Your task to perform on an android device: toggle translation in the chrome app Image 0: 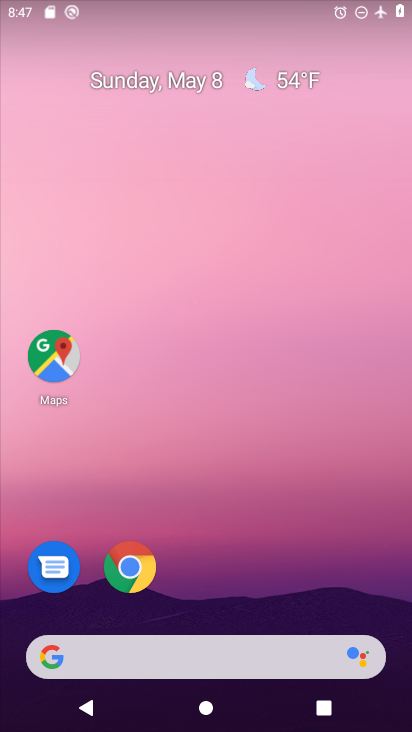
Step 0: drag from (341, 540) to (377, 12)
Your task to perform on an android device: toggle translation in the chrome app Image 1: 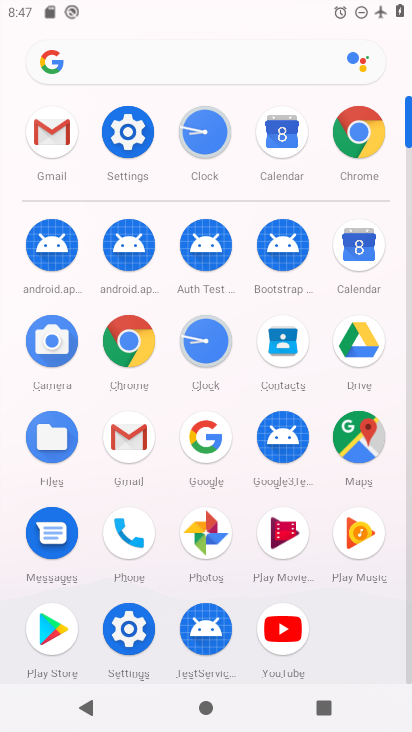
Step 1: click (371, 129)
Your task to perform on an android device: toggle translation in the chrome app Image 2: 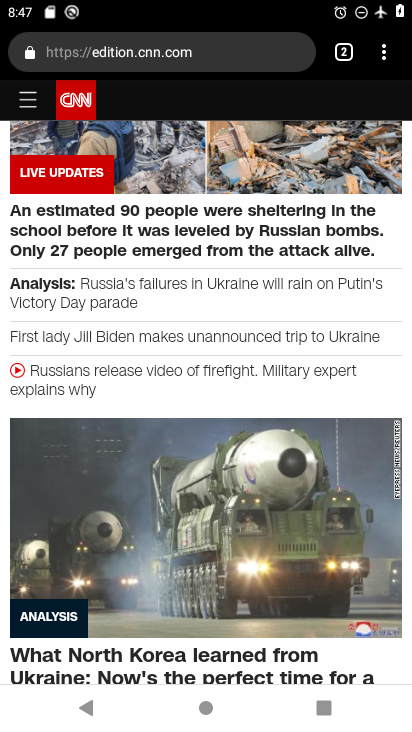
Step 2: drag from (390, 54) to (205, 570)
Your task to perform on an android device: toggle translation in the chrome app Image 3: 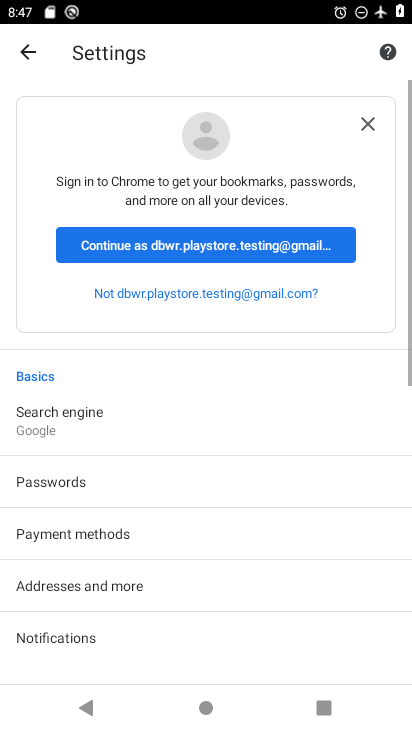
Step 3: drag from (194, 598) to (210, 243)
Your task to perform on an android device: toggle translation in the chrome app Image 4: 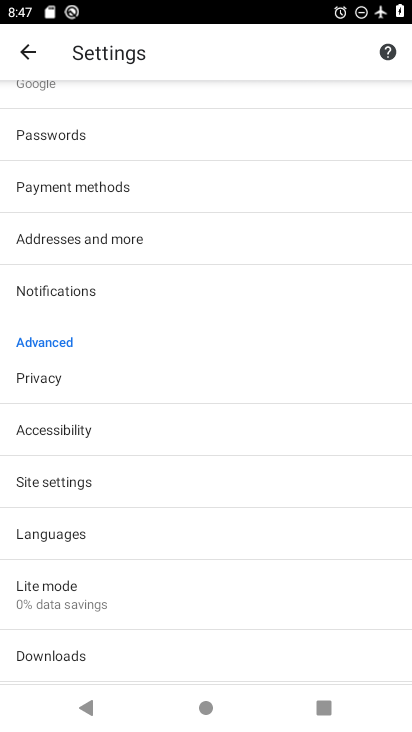
Step 4: drag from (152, 623) to (153, 296)
Your task to perform on an android device: toggle translation in the chrome app Image 5: 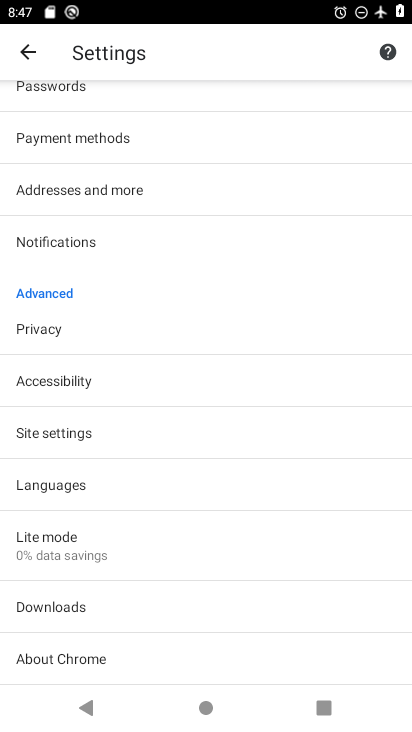
Step 5: click (81, 499)
Your task to perform on an android device: toggle translation in the chrome app Image 6: 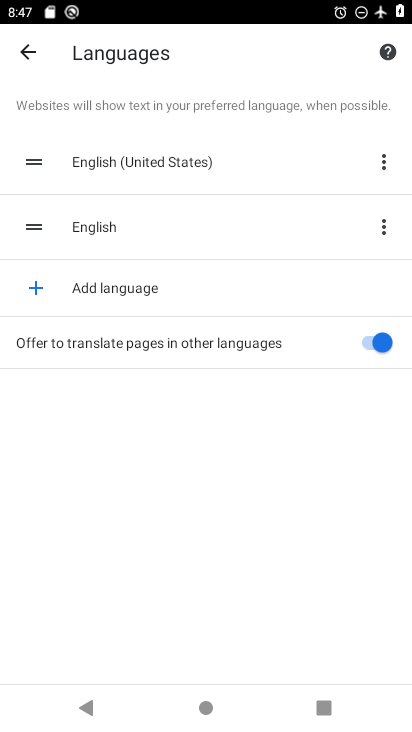
Step 6: click (379, 350)
Your task to perform on an android device: toggle translation in the chrome app Image 7: 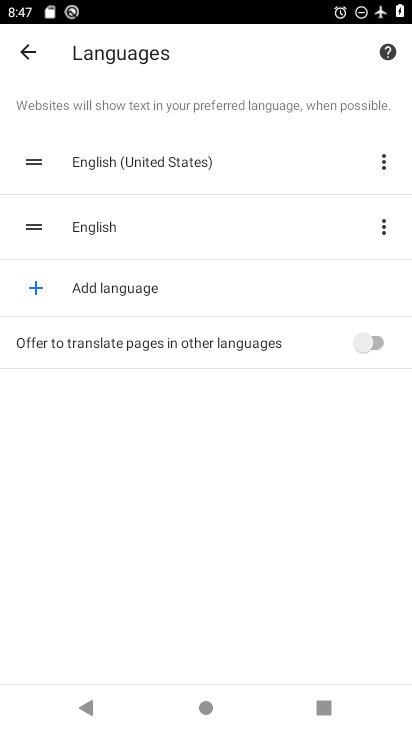
Step 7: task complete